Your task to perform on an android device: Open display settings Image 0: 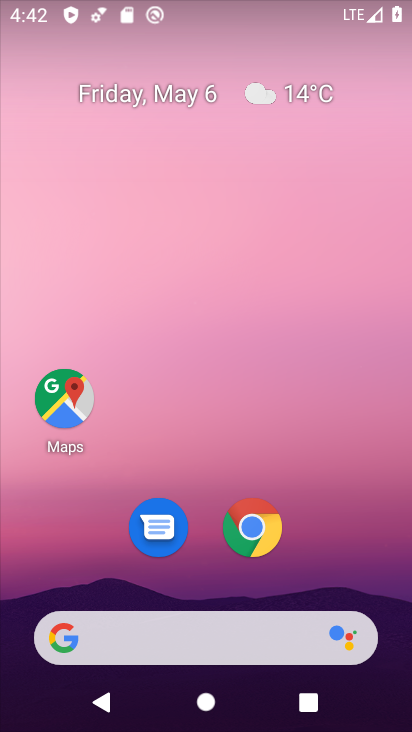
Step 0: drag from (184, 511) to (182, 218)
Your task to perform on an android device: Open display settings Image 1: 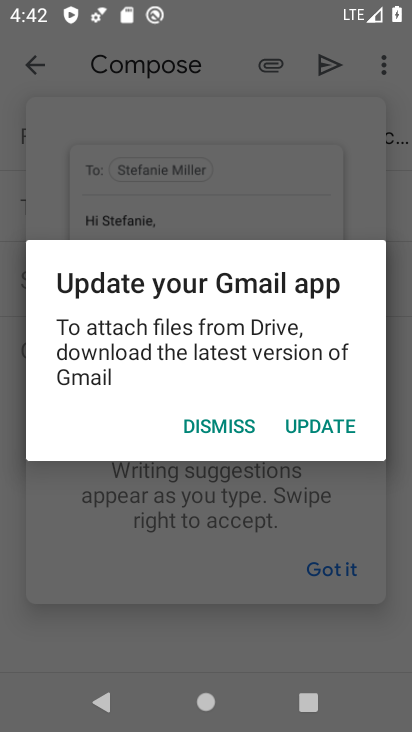
Step 1: press home button
Your task to perform on an android device: Open display settings Image 2: 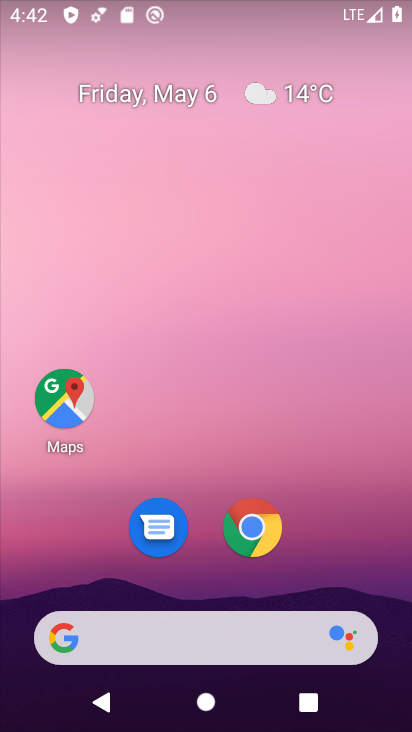
Step 2: drag from (220, 727) to (216, 191)
Your task to perform on an android device: Open display settings Image 3: 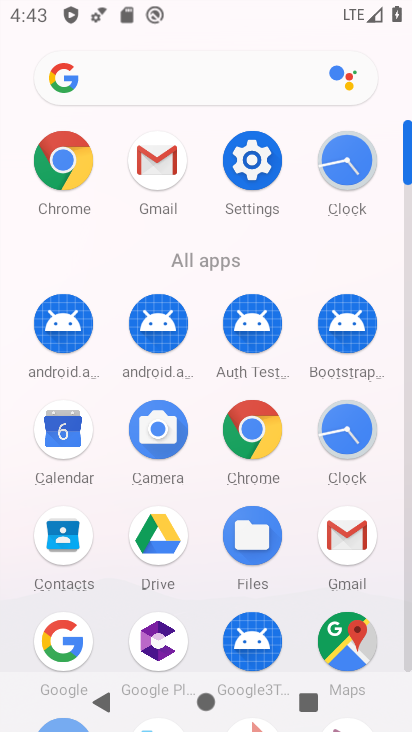
Step 3: click (255, 159)
Your task to perform on an android device: Open display settings Image 4: 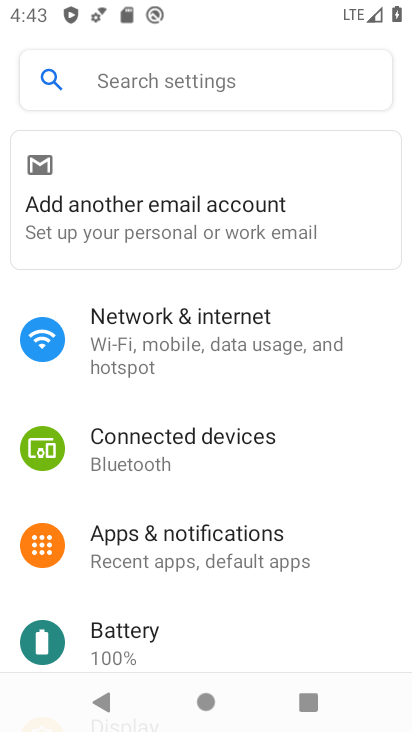
Step 4: drag from (199, 651) to (195, 383)
Your task to perform on an android device: Open display settings Image 5: 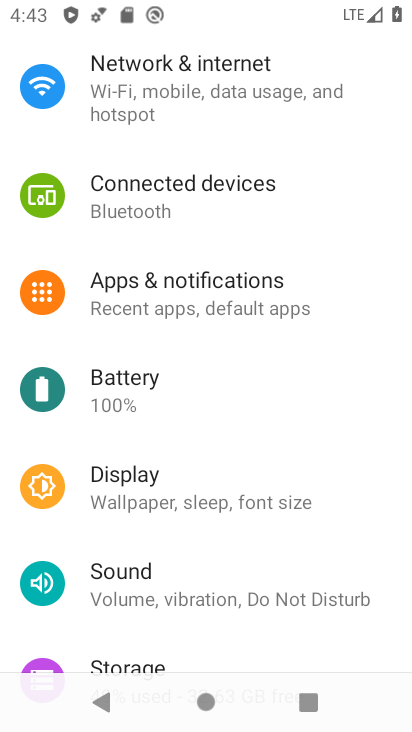
Step 5: click (133, 480)
Your task to perform on an android device: Open display settings Image 6: 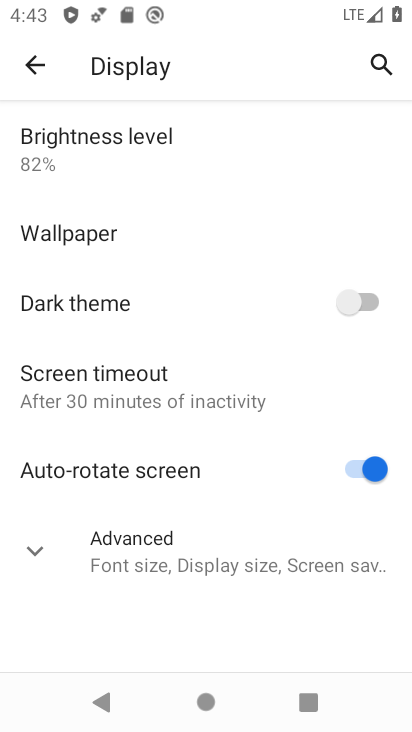
Step 6: task complete